Your task to perform on an android device: toggle notification dots Image 0: 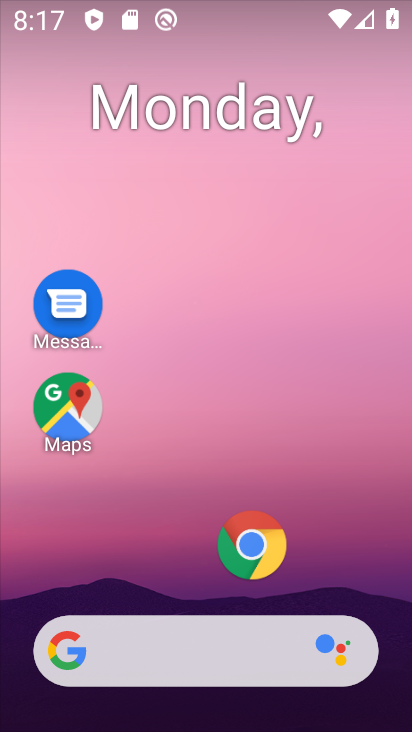
Step 0: drag from (344, 579) to (298, 38)
Your task to perform on an android device: toggle notification dots Image 1: 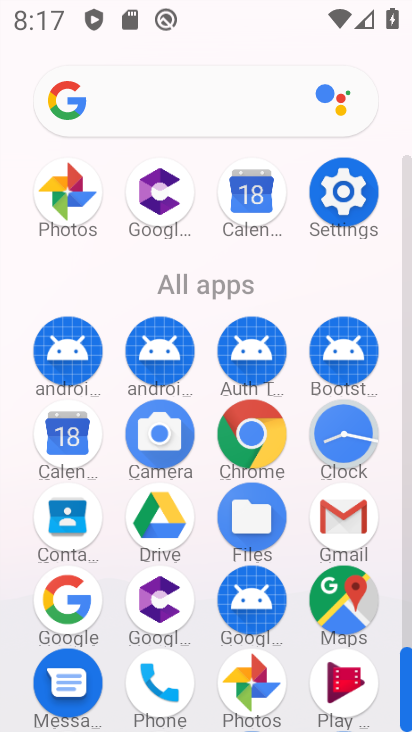
Step 1: click (328, 202)
Your task to perform on an android device: toggle notification dots Image 2: 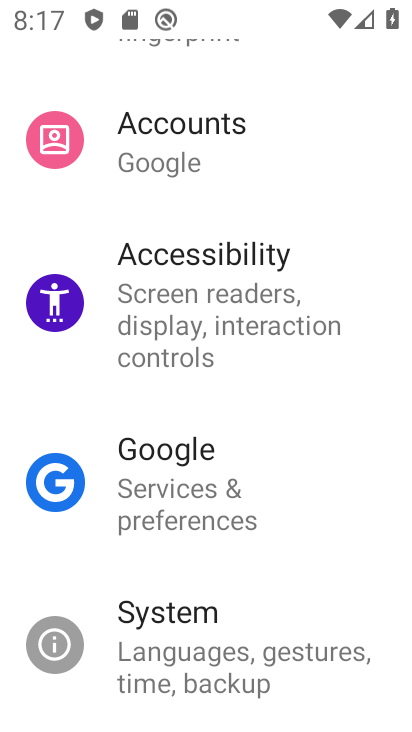
Step 2: drag from (212, 125) to (162, 572)
Your task to perform on an android device: toggle notification dots Image 3: 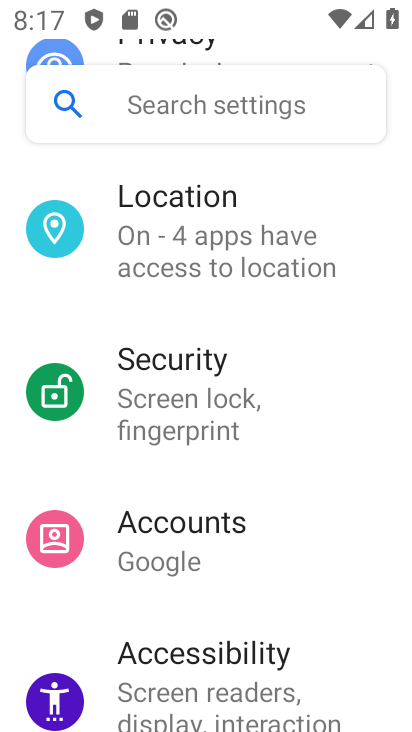
Step 3: drag from (173, 219) to (165, 623)
Your task to perform on an android device: toggle notification dots Image 4: 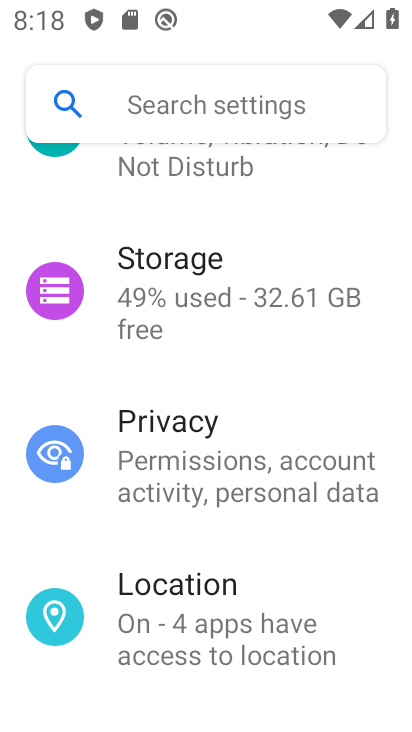
Step 4: drag from (169, 206) to (160, 496)
Your task to perform on an android device: toggle notification dots Image 5: 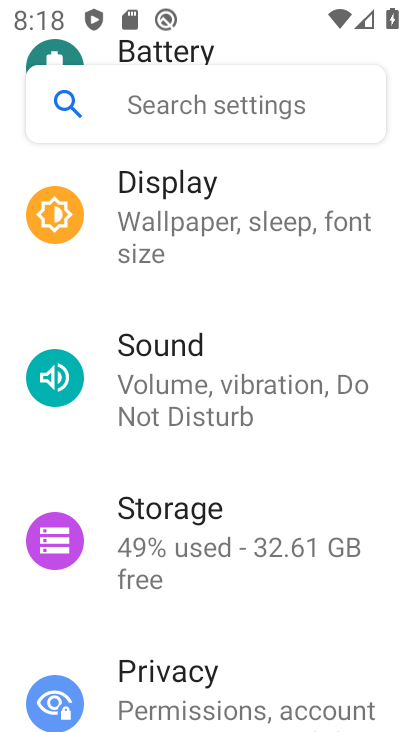
Step 5: drag from (177, 262) to (186, 619)
Your task to perform on an android device: toggle notification dots Image 6: 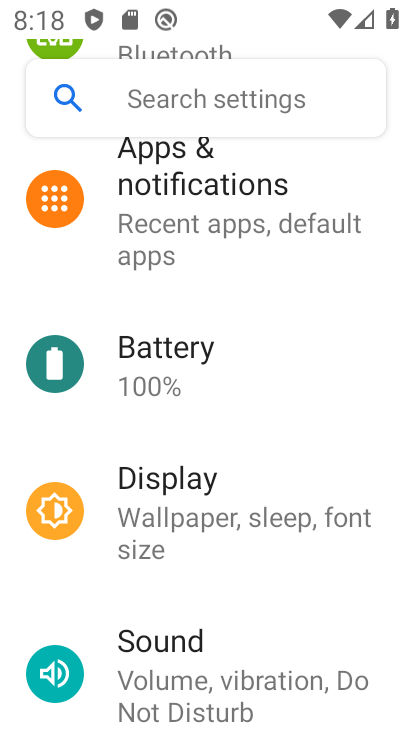
Step 6: click (175, 244)
Your task to perform on an android device: toggle notification dots Image 7: 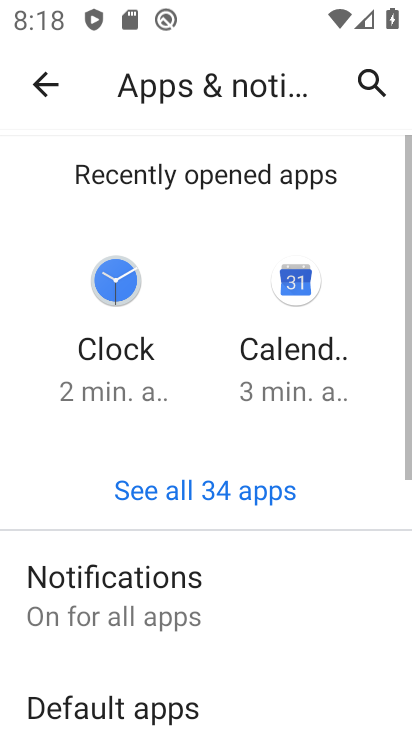
Step 7: click (160, 600)
Your task to perform on an android device: toggle notification dots Image 8: 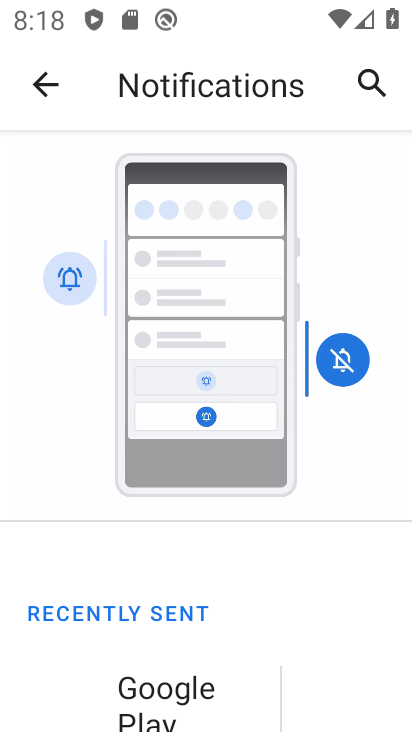
Step 8: drag from (224, 596) to (225, 108)
Your task to perform on an android device: toggle notification dots Image 9: 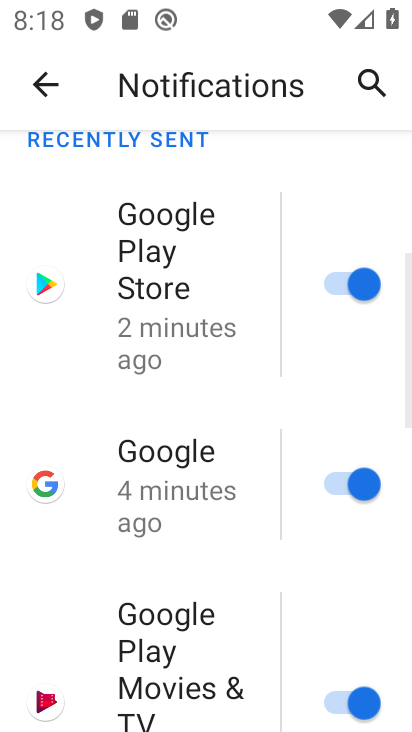
Step 9: drag from (205, 572) to (191, 17)
Your task to perform on an android device: toggle notification dots Image 10: 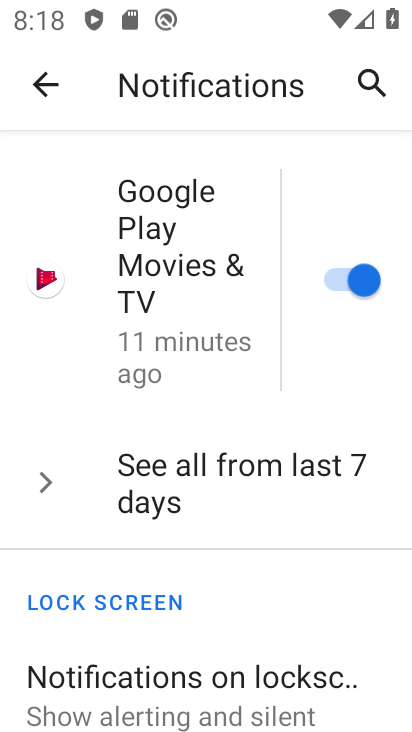
Step 10: drag from (186, 623) to (160, 245)
Your task to perform on an android device: toggle notification dots Image 11: 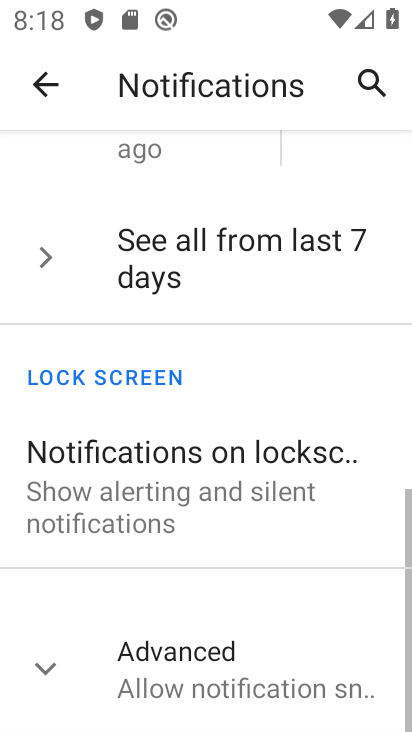
Step 11: click (150, 662)
Your task to perform on an android device: toggle notification dots Image 12: 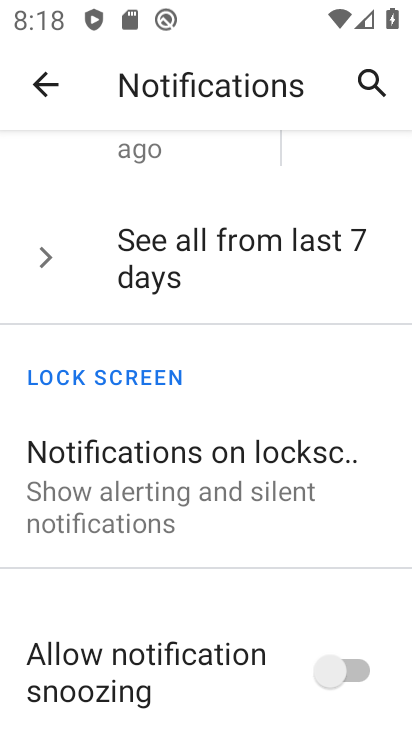
Step 12: drag from (212, 653) to (199, 180)
Your task to perform on an android device: toggle notification dots Image 13: 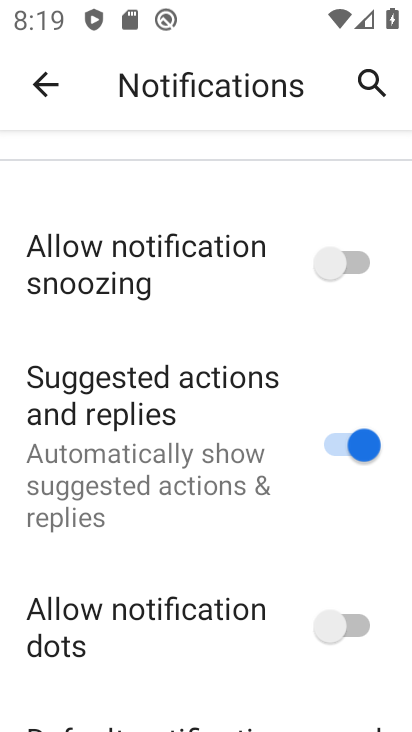
Step 13: click (320, 616)
Your task to perform on an android device: toggle notification dots Image 14: 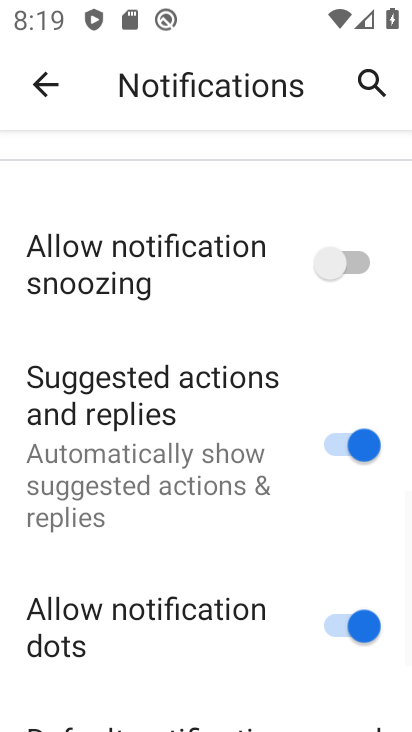
Step 14: task complete